Your task to perform on an android device: Open Wikipedia Image 0: 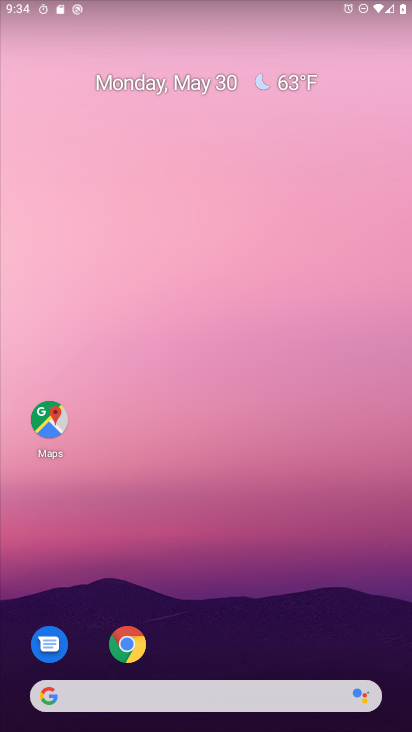
Step 0: click (131, 645)
Your task to perform on an android device: Open Wikipedia Image 1: 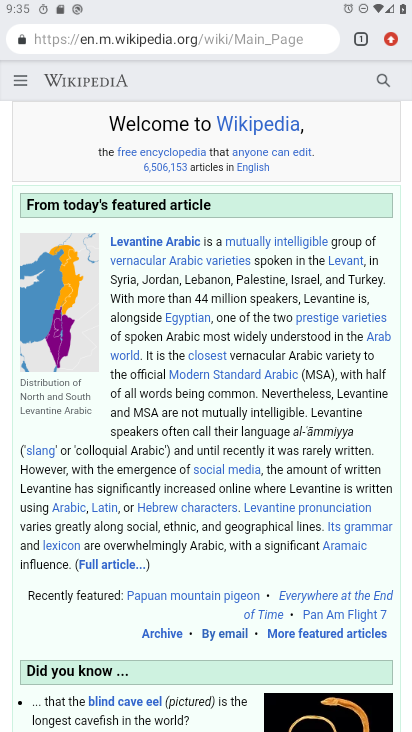
Step 1: task complete